Your task to perform on an android device: Open maps Image 0: 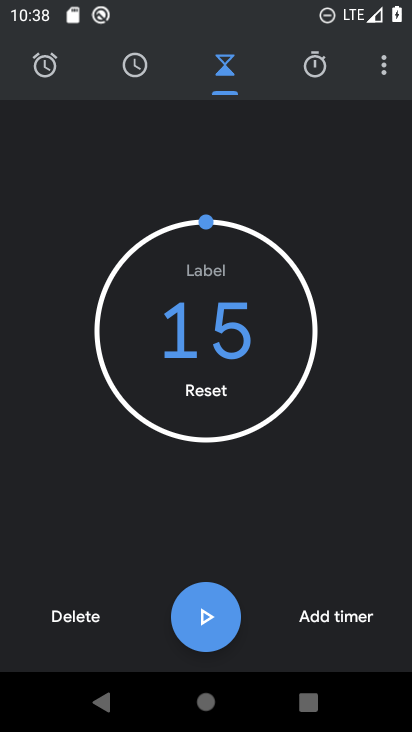
Step 0: press home button
Your task to perform on an android device: Open maps Image 1: 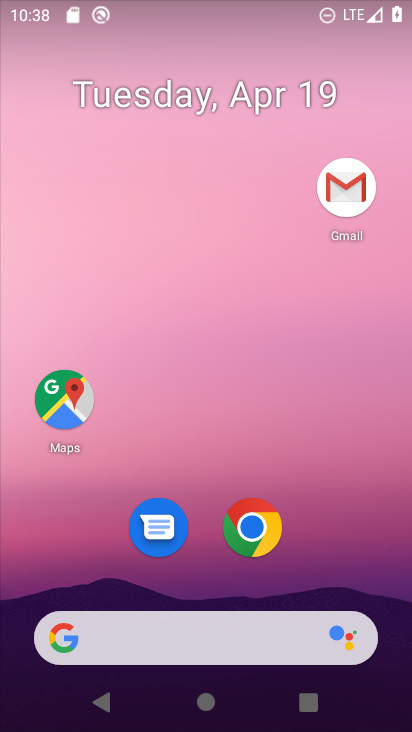
Step 1: drag from (357, 544) to (370, 118)
Your task to perform on an android device: Open maps Image 2: 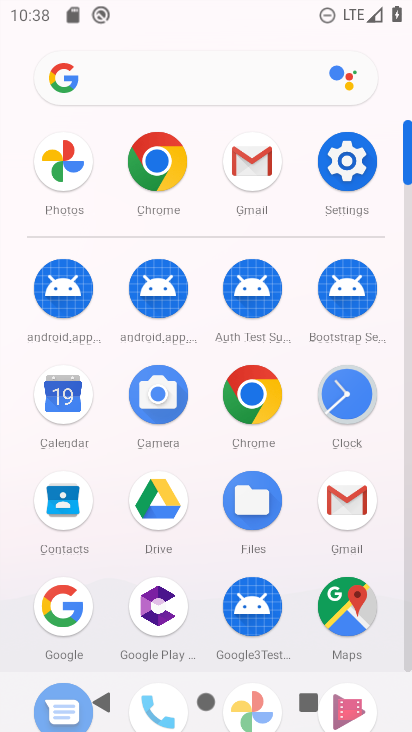
Step 2: click (357, 610)
Your task to perform on an android device: Open maps Image 3: 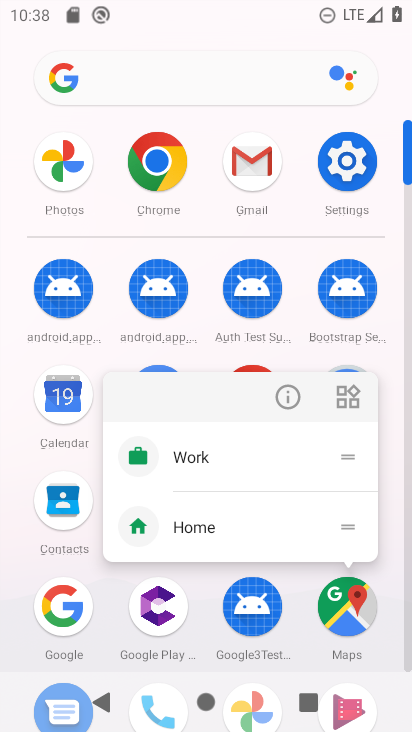
Step 3: click (357, 609)
Your task to perform on an android device: Open maps Image 4: 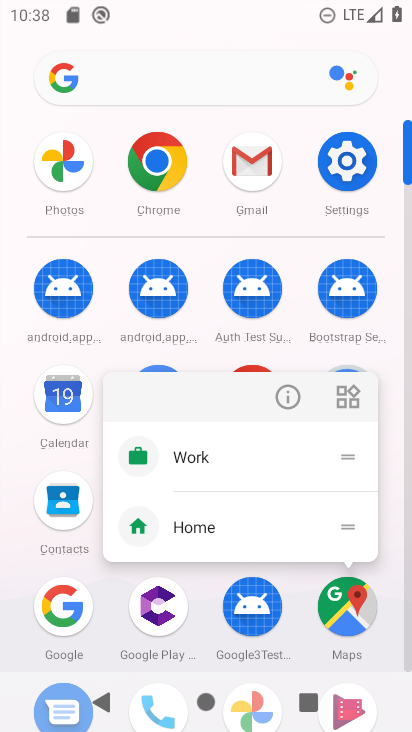
Step 4: click (337, 621)
Your task to perform on an android device: Open maps Image 5: 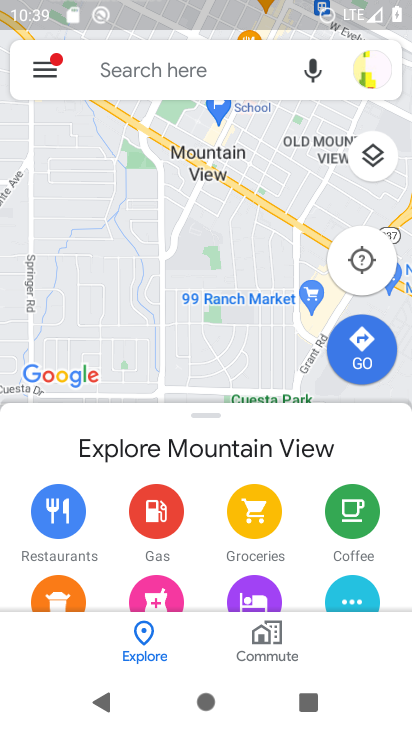
Step 5: task complete